Your task to perform on an android device: Show me popular games on the Play Store Image 0: 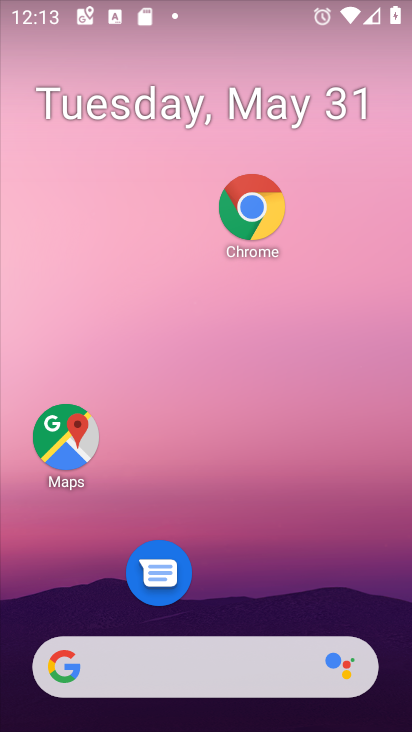
Step 0: drag from (215, 639) to (242, 191)
Your task to perform on an android device: Show me popular games on the Play Store Image 1: 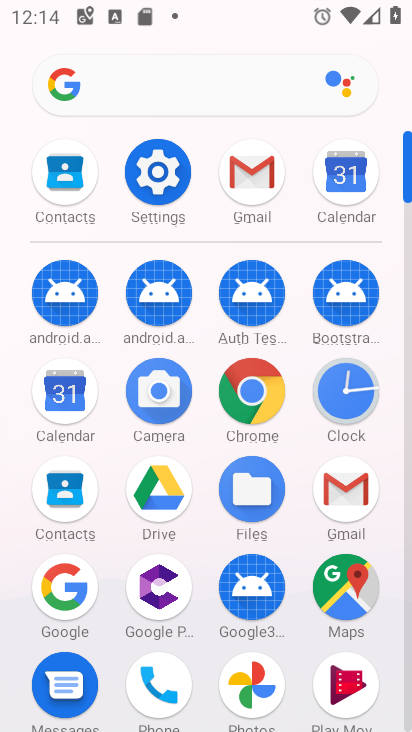
Step 1: drag from (219, 467) to (253, 188)
Your task to perform on an android device: Show me popular games on the Play Store Image 2: 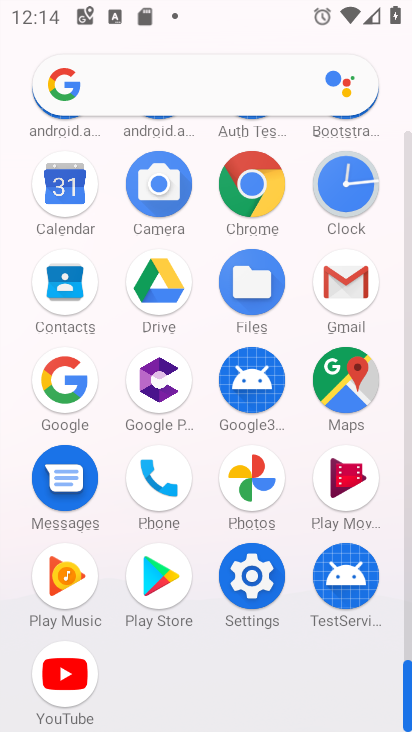
Step 2: click (172, 575)
Your task to perform on an android device: Show me popular games on the Play Store Image 3: 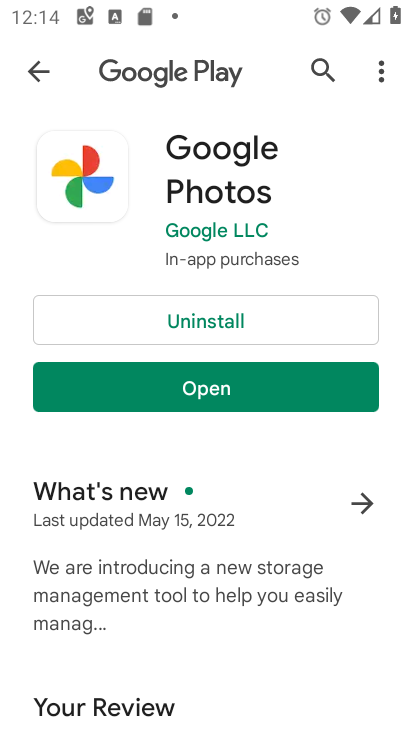
Step 3: click (34, 73)
Your task to perform on an android device: Show me popular games on the Play Store Image 4: 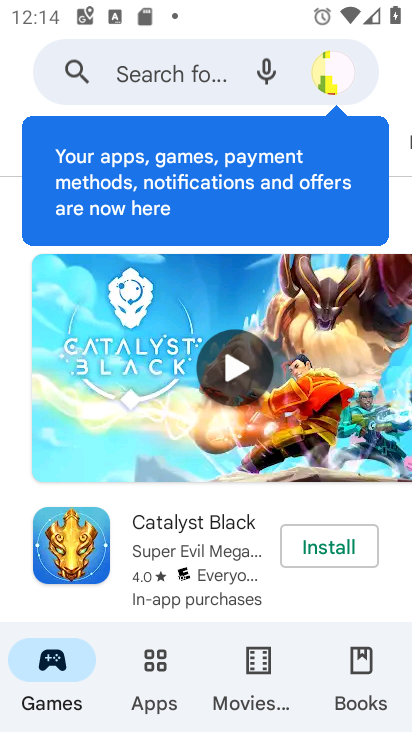
Step 4: task complete